Your task to perform on an android device: turn off notifications settings in the gmail app Image 0: 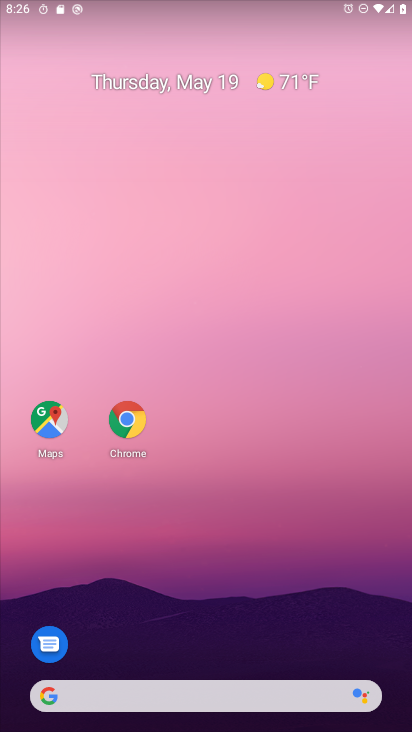
Step 0: drag from (192, 676) to (233, 314)
Your task to perform on an android device: turn off notifications settings in the gmail app Image 1: 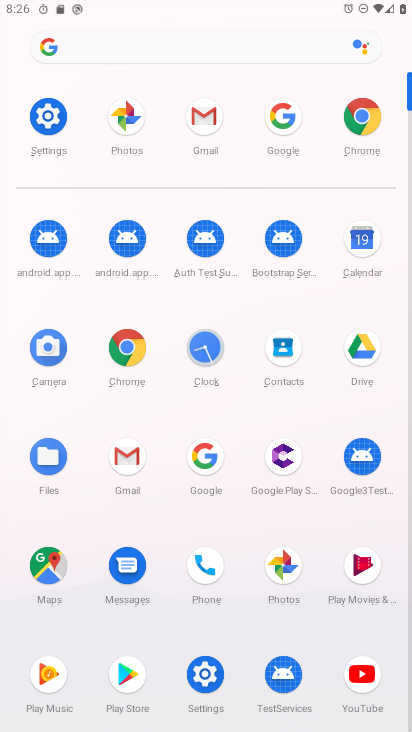
Step 1: click (129, 457)
Your task to perform on an android device: turn off notifications settings in the gmail app Image 2: 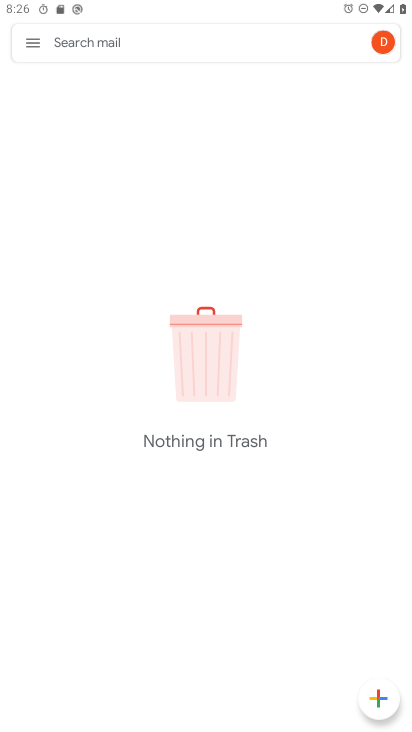
Step 2: click (33, 45)
Your task to perform on an android device: turn off notifications settings in the gmail app Image 3: 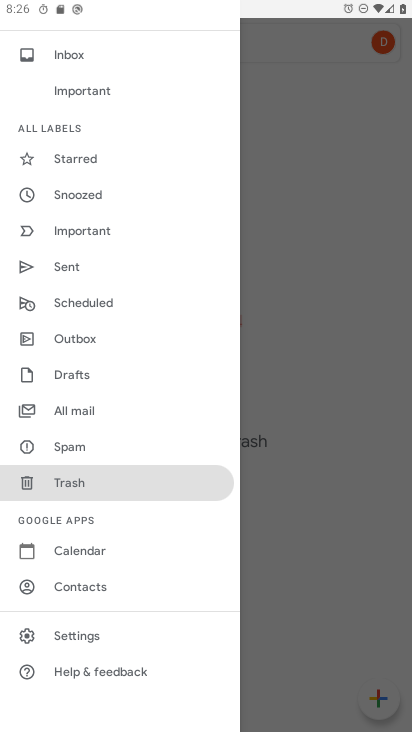
Step 3: click (86, 632)
Your task to perform on an android device: turn off notifications settings in the gmail app Image 4: 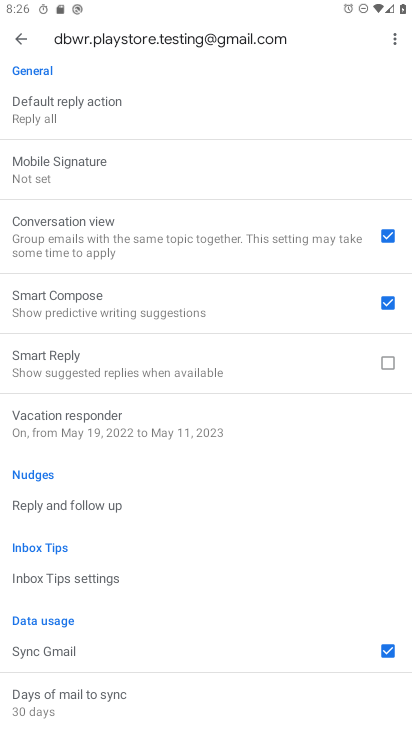
Step 4: click (16, 37)
Your task to perform on an android device: turn off notifications settings in the gmail app Image 5: 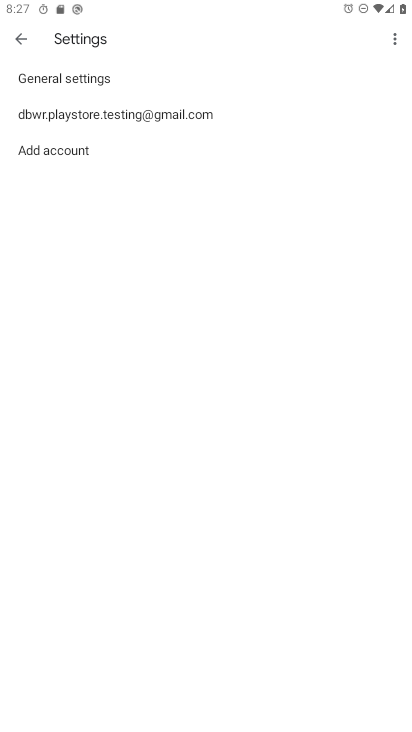
Step 5: click (55, 81)
Your task to perform on an android device: turn off notifications settings in the gmail app Image 6: 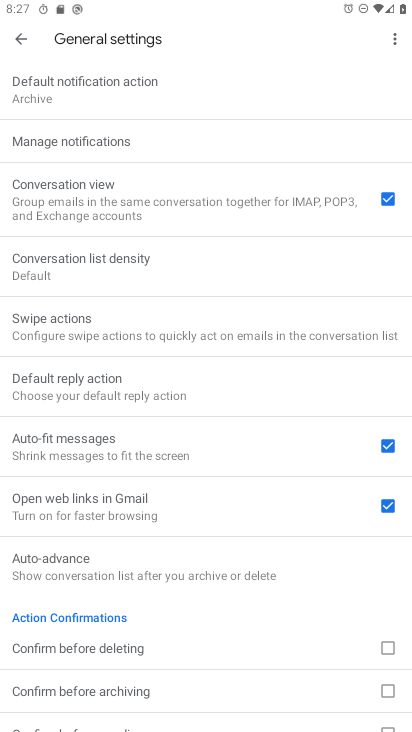
Step 6: click (59, 144)
Your task to perform on an android device: turn off notifications settings in the gmail app Image 7: 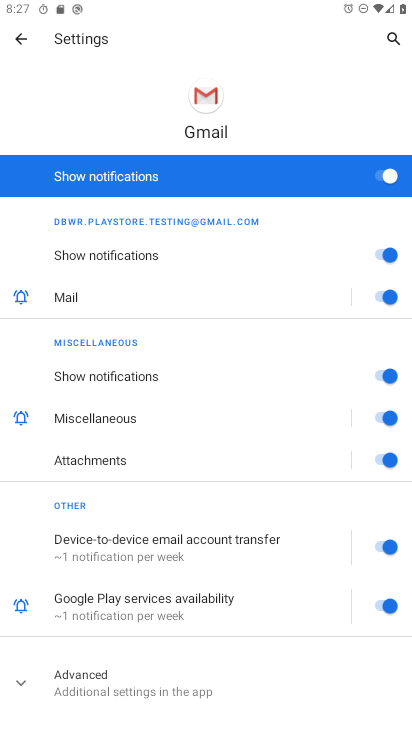
Step 7: click (385, 178)
Your task to perform on an android device: turn off notifications settings in the gmail app Image 8: 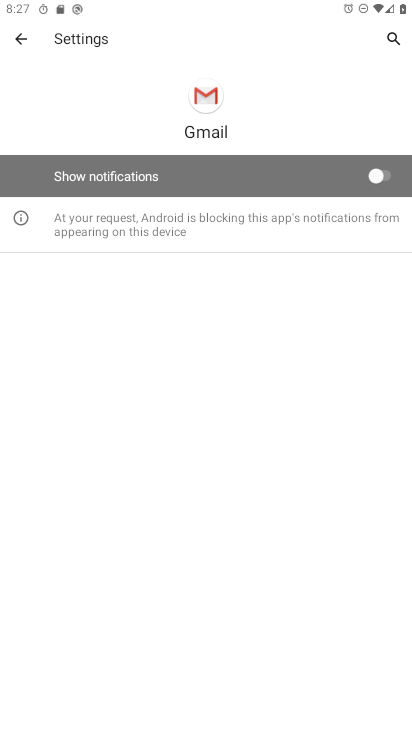
Step 8: task complete